Your task to perform on an android device: set default search engine in the chrome app Image 0: 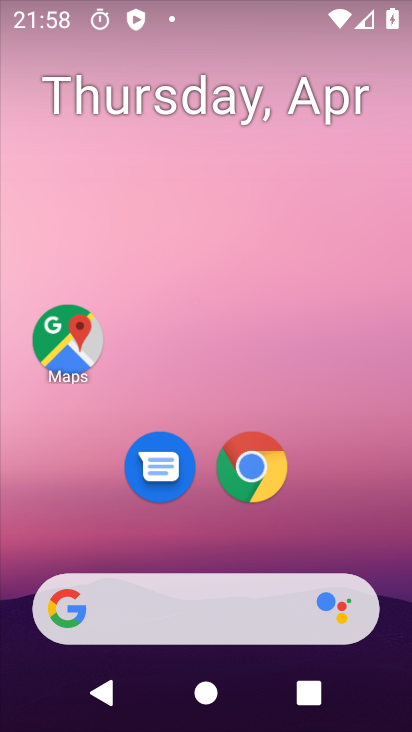
Step 0: click (274, 481)
Your task to perform on an android device: set default search engine in the chrome app Image 1: 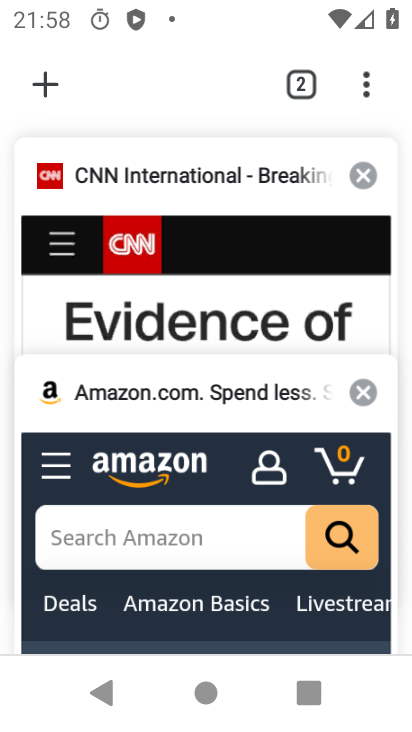
Step 1: click (374, 87)
Your task to perform on an android device: set default search engine in the chrome app Image 2: 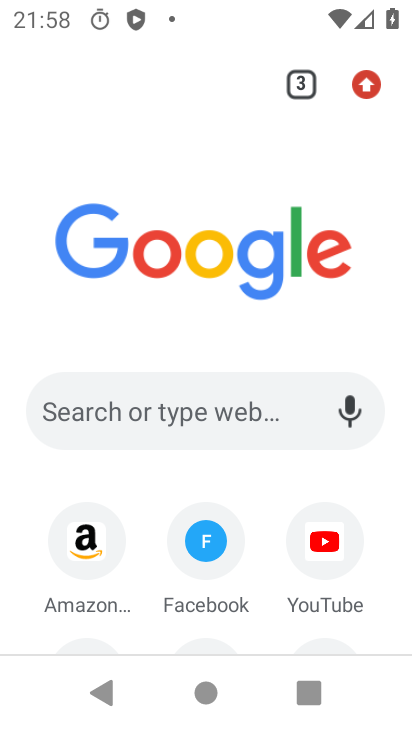
Step 2: drag from (365, 90) to (130, 508)
Your task to perform on an android device: set default search engine in the chrome app Image 3: 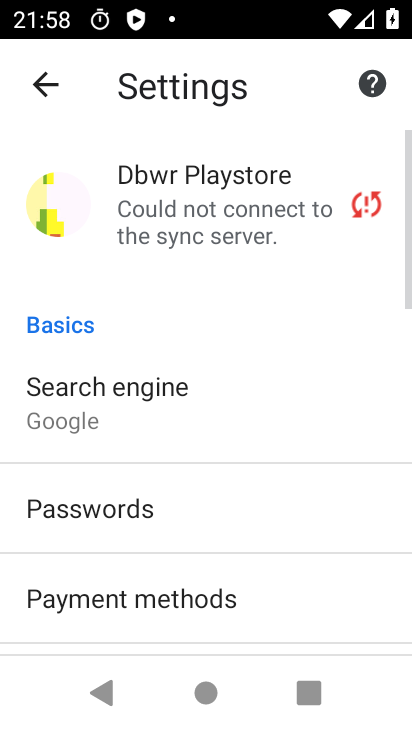
Step 3: click (115, 418)
Your task to perform on an android device: set default search engine in the chrome app Image 4: 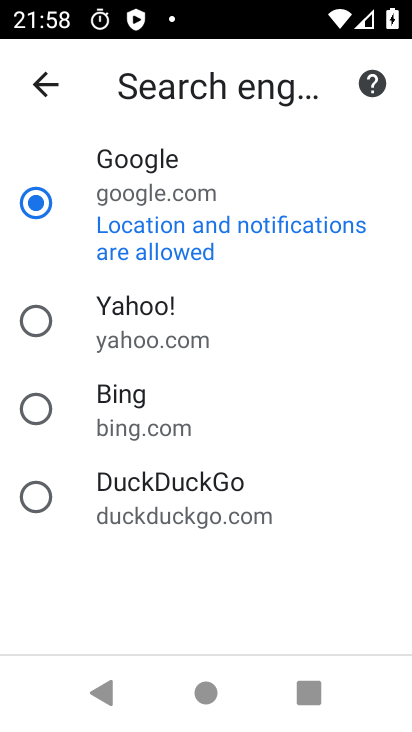
Step 4: click (30, 199)
Your task to perform on an android device: set default search engine in the chrome app Image 5: 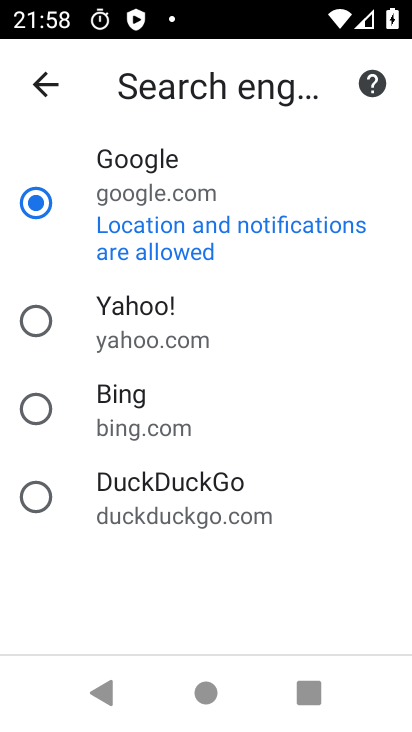
Step 5: task complete